Your task to perform on an android device: Open Google Chrome and open the bookmarks view Image 0: 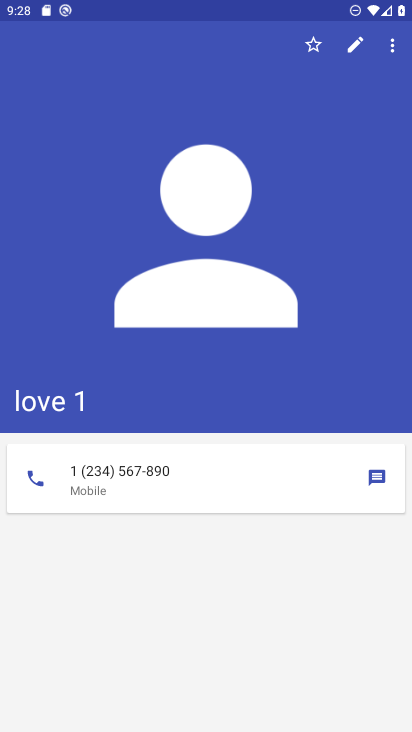
Step 0: press home button
Your task to perform on an android device: Open Google Chrome and open the bookmarks view Image 1: 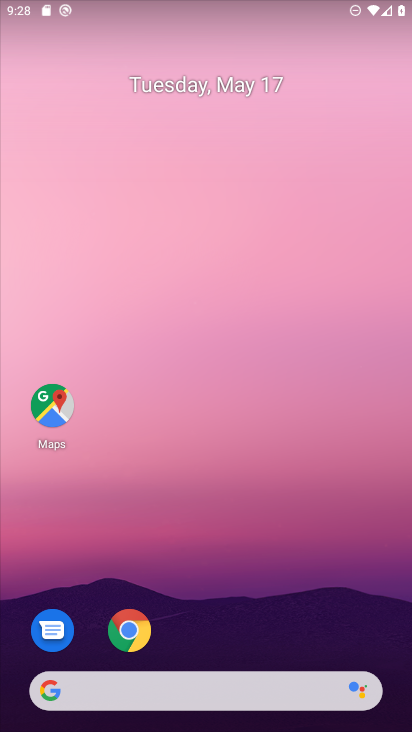
Step 1: drag from (366, 635) to (367, 186)
Your task to perform on an android device: Open Google Chrome and open the bookmarks view Image 2: 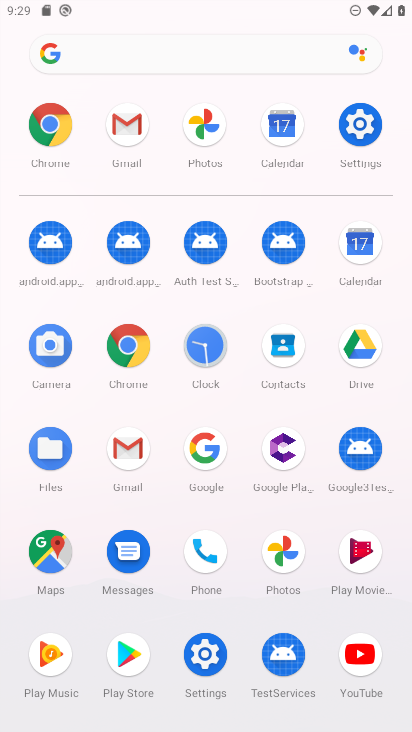
Step 2: click (137, 348)
Your task to perform on an android device: Open Google Chrome and open the bookmarks view Image 3: 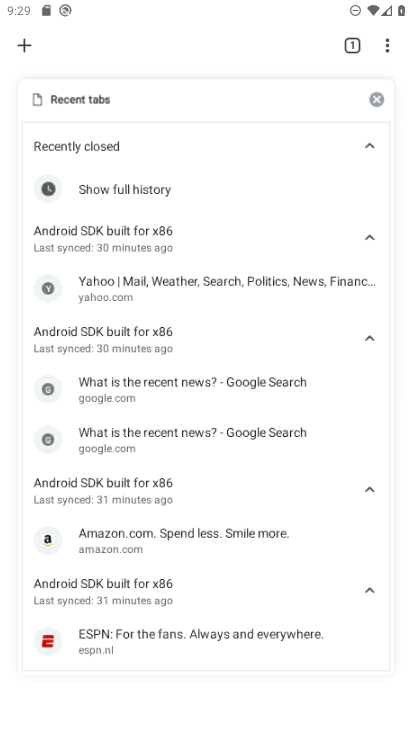
Step 3: click (386, 46)
Your task to perform on an android device: Open Google Chrome and open the bookmarks view Image 4: 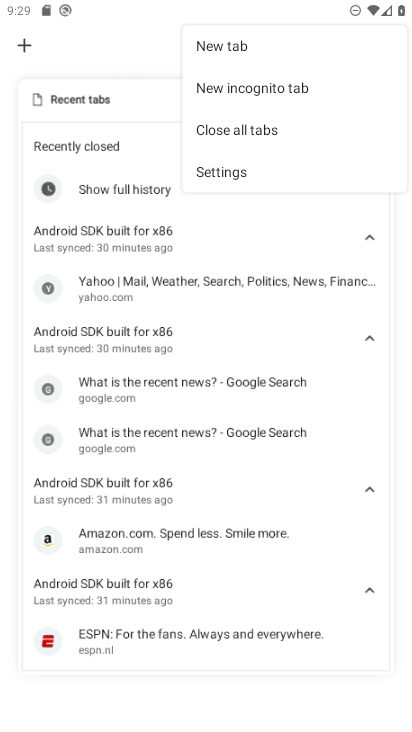
Step 4: press back button
Your task to perform on an android device: Open Google Chrome and open the bookmarks view Image 5: 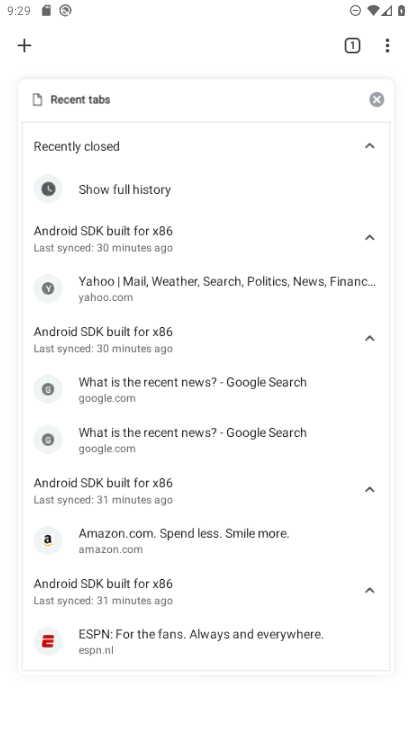
Step 5: press back button
Your task to perform on an android device: Open Google Chrome and open the bookmarks view Image 6: 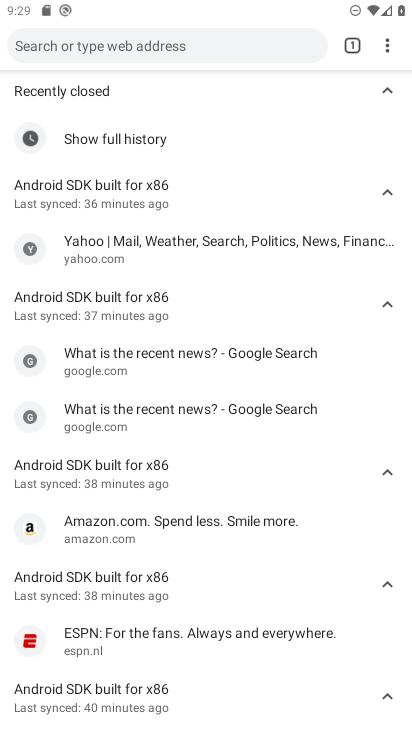
Step 6: click (389, 49)
Your task to perform on an android device: Open Google Chrome and open the bookmarks view Image 7: 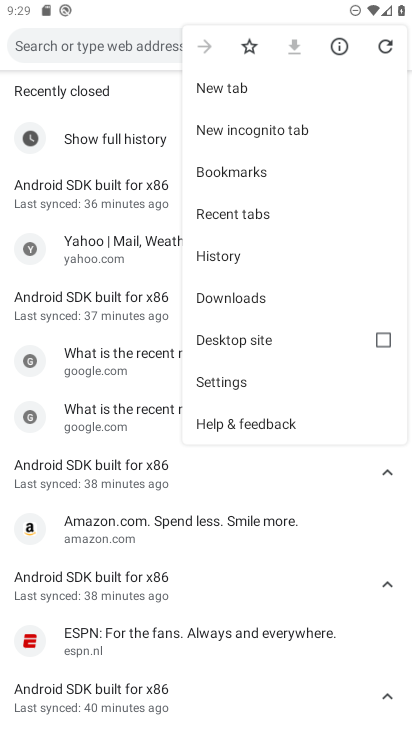
Step 7: click (263, 174)
Your task to perform on an android device: Open Google Chrome and open the bookmarks view Image 8: 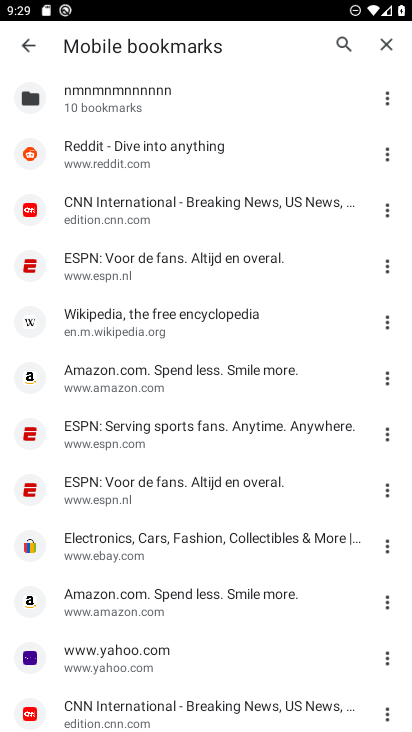
Step 8: task complete